Your task to perform on an android device: Open the Play Movies app and select the watchlist tab. Image 0: 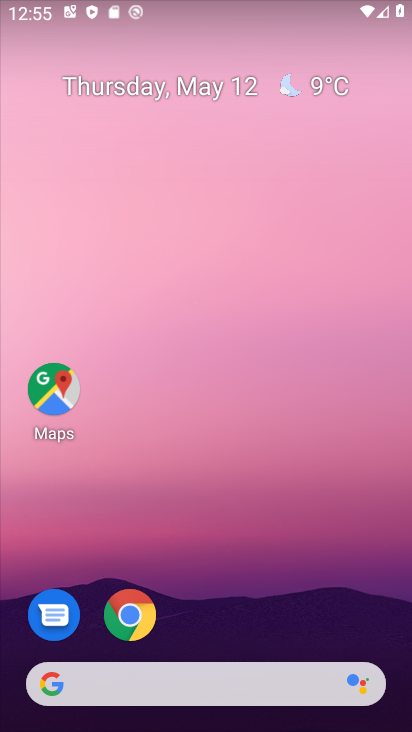
Step 0: drag from (304, 577) to (294, 35)
Your task to perform on an android device: Open the Play Movies app and select the watchlist tab. Image 1: 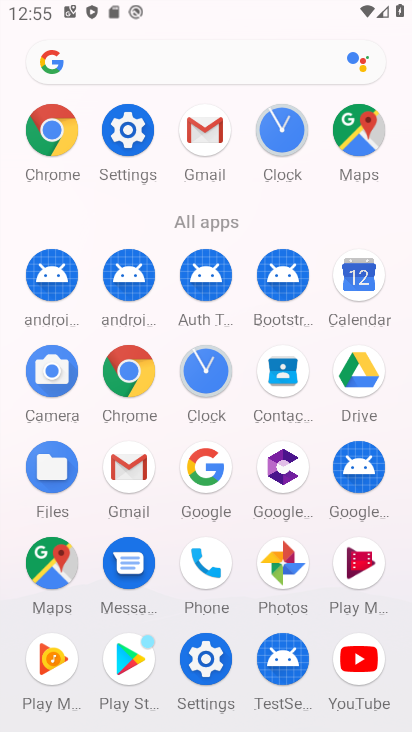
Step 1: click (351, 567)
Your task to perform on an android device: Open the Play Movies app and select the watchlist tab. Image 2: 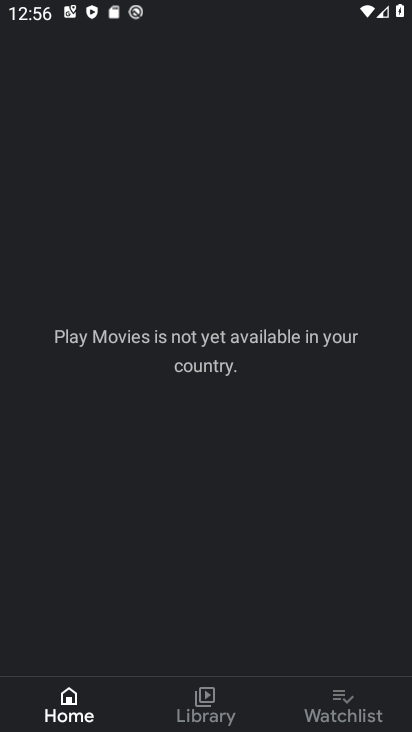
Step 2: click (349, 694)
Your task to perform on an android device: Open the Play Movies app and select the watchlist tab. Image 3: 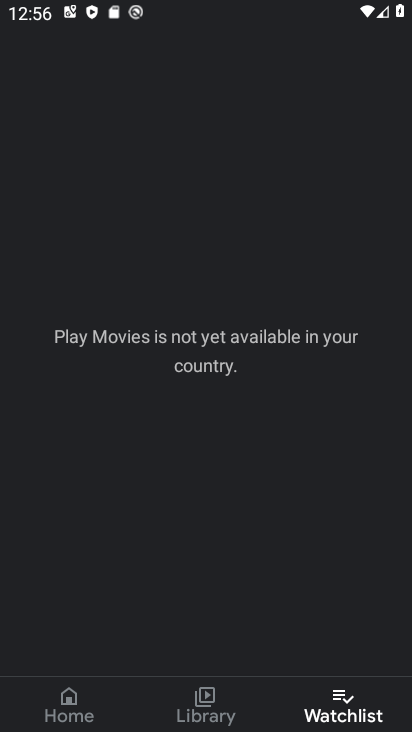
Step 3: task complete